Your task to perform on an android device: turn on javascript in the chrome app Image 0: 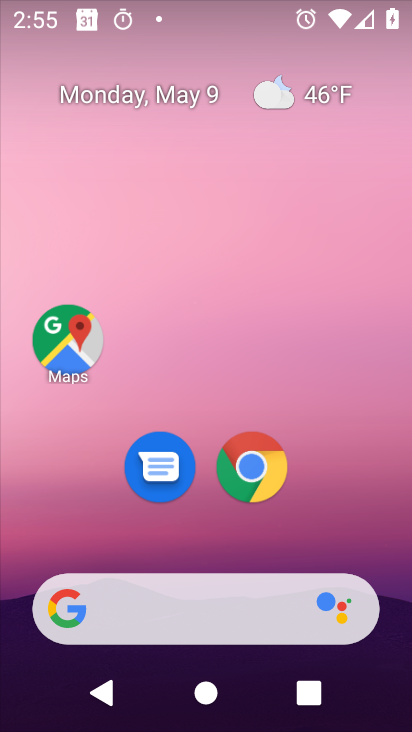
Step 0: click (258, 460)
Your task to perform on an android device: turn on javascript in the chrome app Image 1: 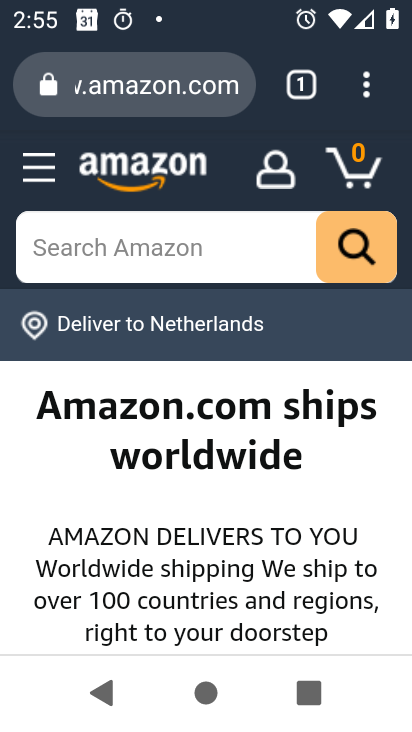
Step 1: drag from (361, 82) to (218, 503)
Your task to perform on an android device: turn on javascript in the chrome app Image 2: 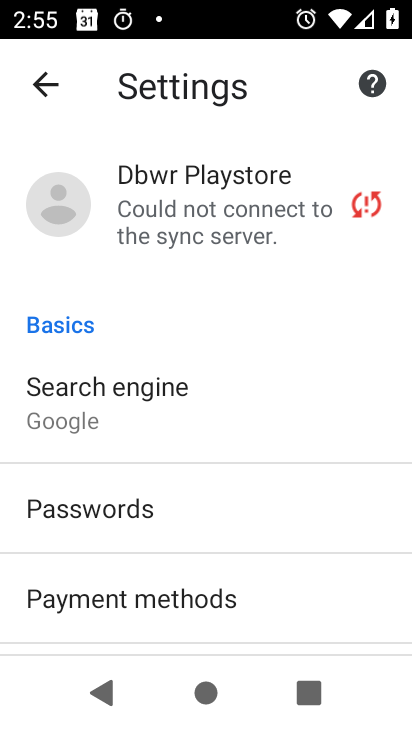
Step 2: drag from (257, 586) to (182, 146)
Your task to perform on an android device: turn on javascript in the chrome app Image 3: 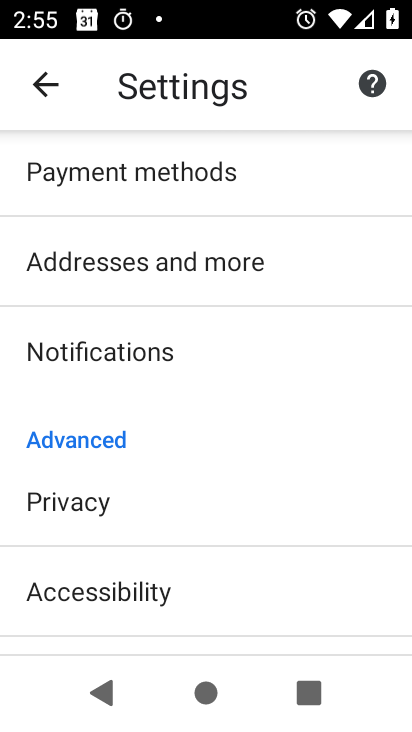
Step 3: drag from (130, 556) to (185, 153)
Your task to perform on an android device: turn on javascript in the chrome app Image 4: 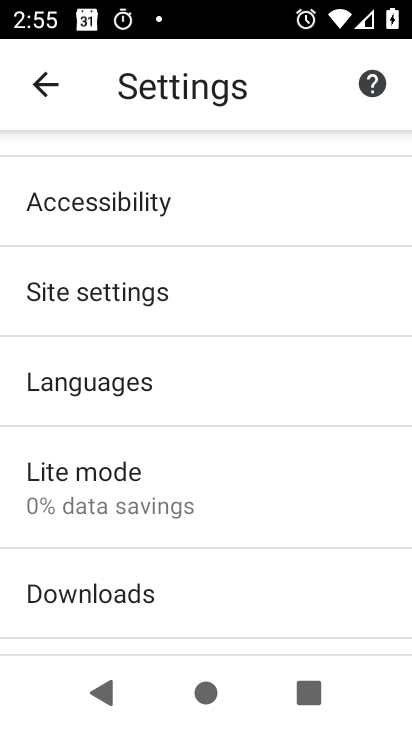
Step 4: click (145, 289)
Your task to perform on an android device: turn on javascript in the chrome app Image 5: 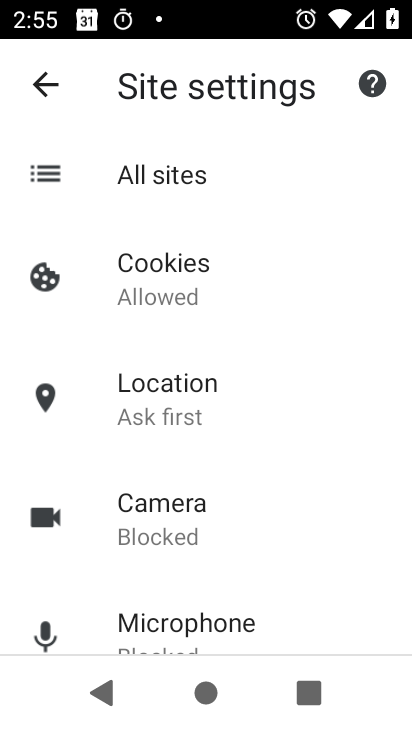
Step 5: drag from (263, 584) to (272, 216)
Your task to perform on an android device: turn on javascript in the chrome app Image 6: 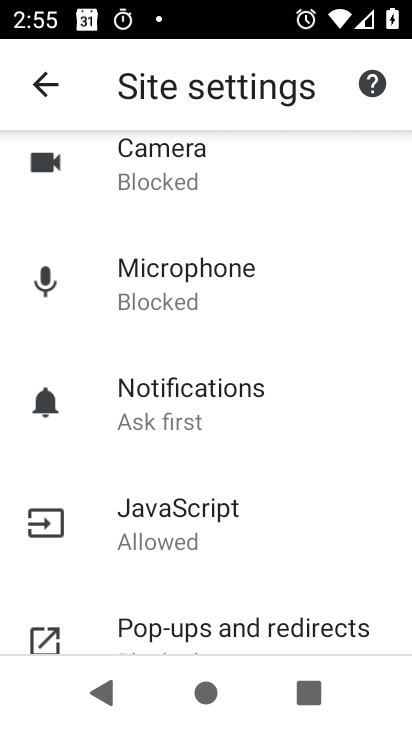
Step 6: drag from (265, 522) to (249, 270)
Your task to perform on an android device: turn on javascript in the chrome app Image 7: 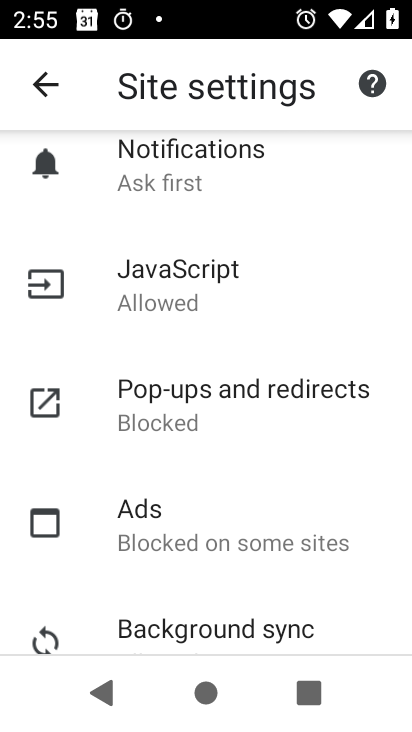
Step 7: click (193, 296)
Your task to perform on an android device: turn on javascript in the chrome app Image 8: 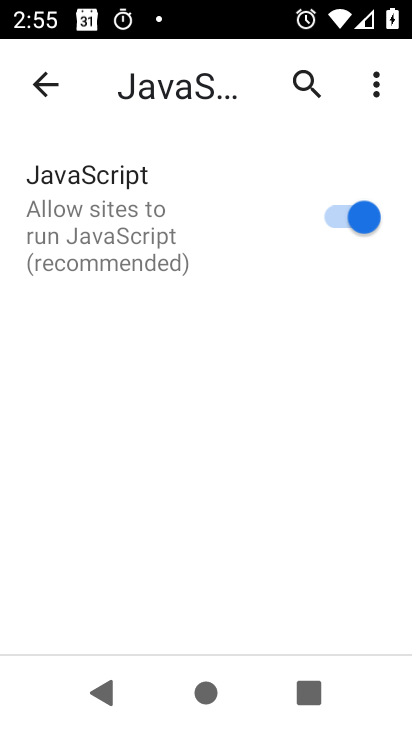
Step 8: task complete